Your task to perform on an android device: toggle javascript in the chrome app Image 0: 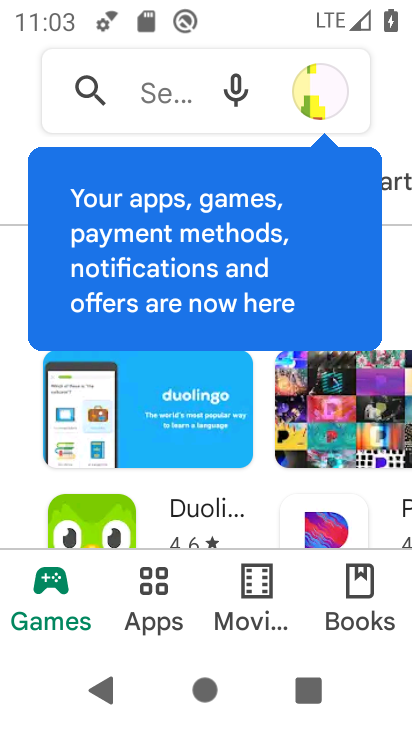
Step 0: press home button
Your task to perform on an android device: toggle javascript in the chrome app Image 1: 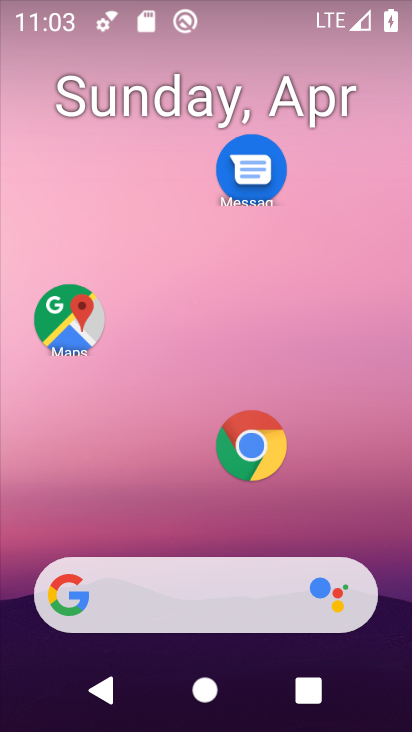
Step 1: click (255, 437)
Your task to perform on an android device: toggle javascript in the chrome app Image 2: 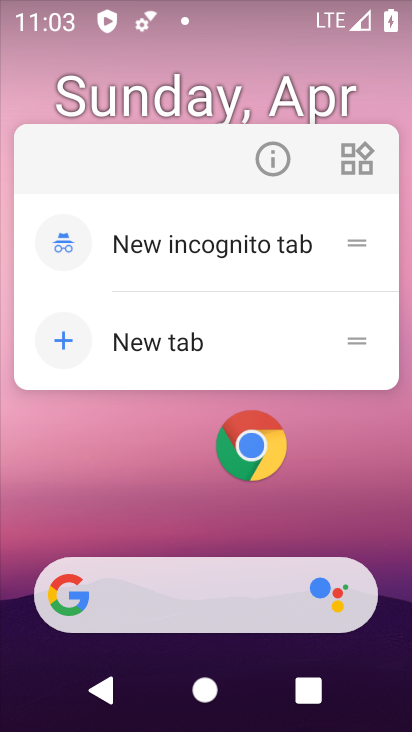
Step 2: click (246, 444)
Your task to perform on an android device: toggle javascript in the chrome app Image 3: 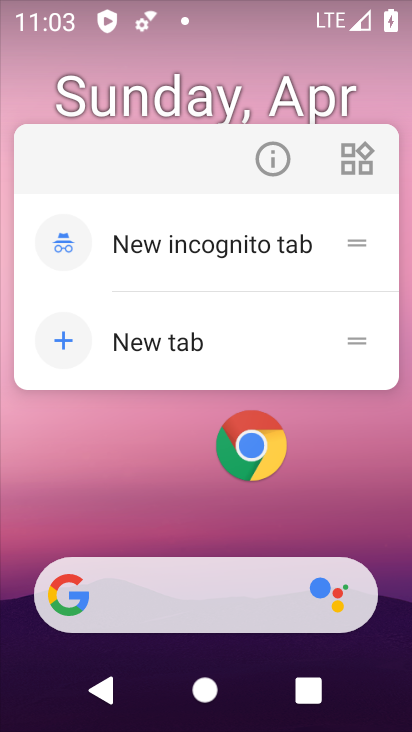
Step 3: click (242, 446)
Your task to perform on an android device: toggle javascript in the chrome app Image 4: 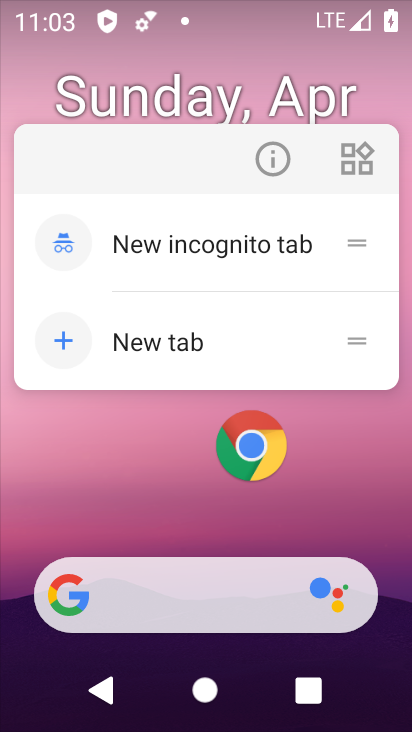
Step 4: click (256, 441)
Your task to perform on an android device: toggle javascript in the chrome app Image 5: 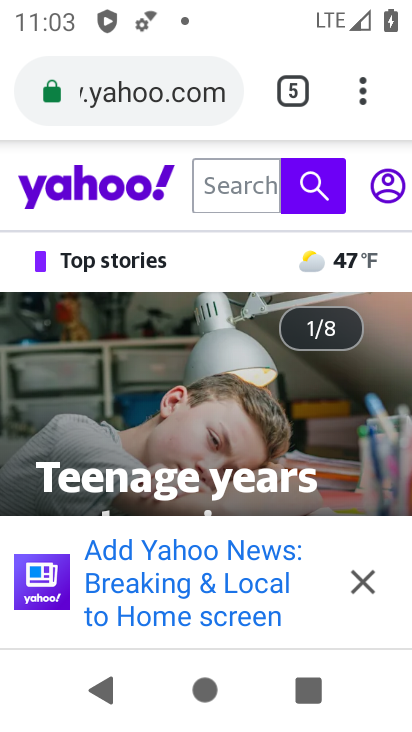
Step 5: drag from (362, 94) to (177, 477)
Your task to perform on an android device: toggle javascript in the chrome app Image 6: 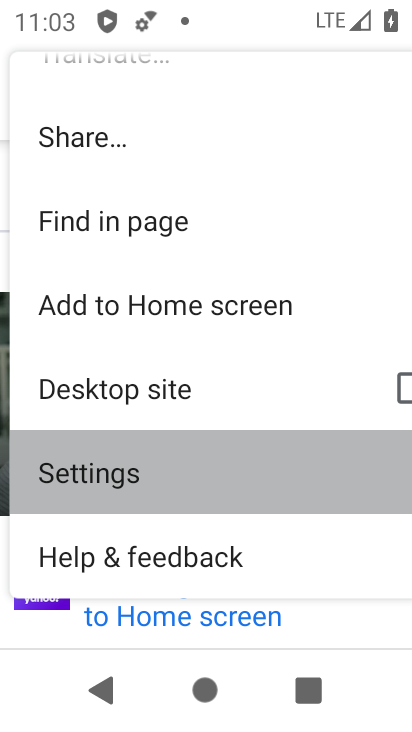
Step 6: click (176, 478)
Your task to perform on an android device: toggle javascript in the chrome app Image 7: 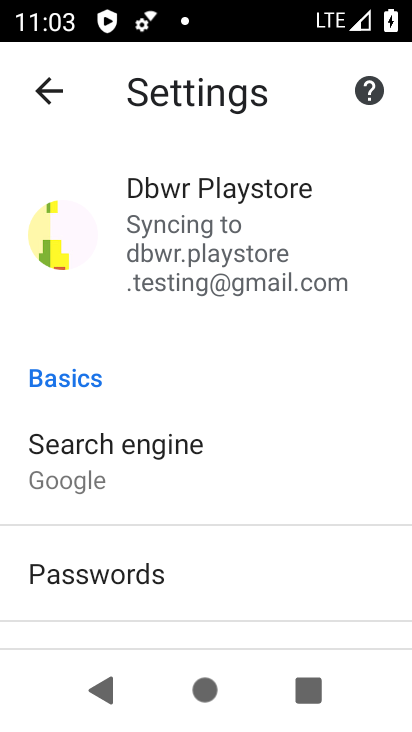
Step 7: drag from (161, 526) to (240, 225)
Your task to perform on an android device: toggle javascript in the chrome app Image 8: 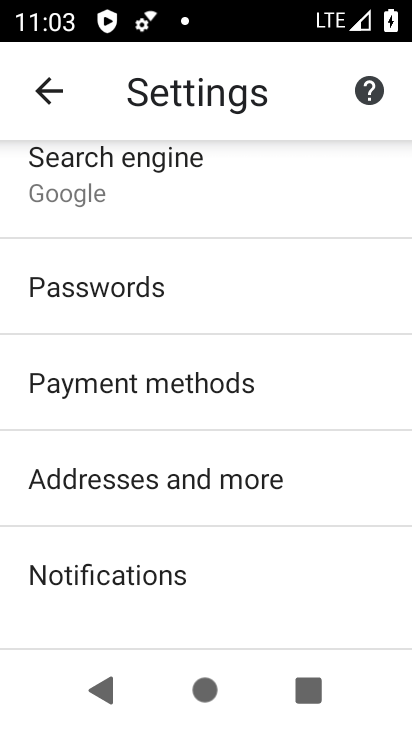
Step 8: drag from (120, 576) to (294, 181)
Your task to perform on an android device: toggle javascript in the chrome app Image 9: 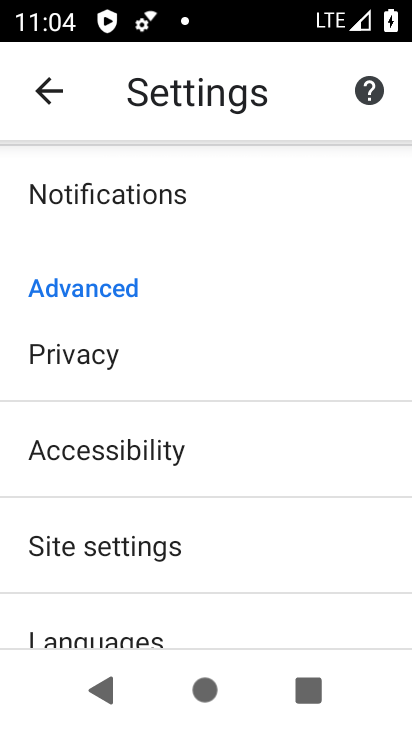
Step 9: click (120, 554)
Your task to perform on an android device: toggle javascript in the chrome app Image 10: 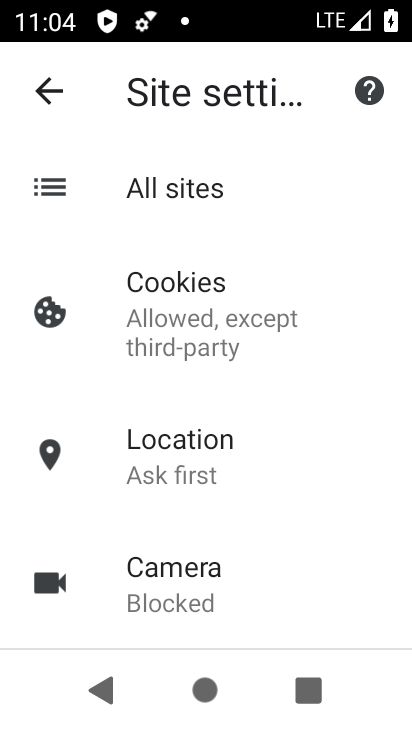
Step 10: drag from (201, 526) to (347, 104)
Your task to perform on an android device: toggle javascript in the chrome app Image 11: 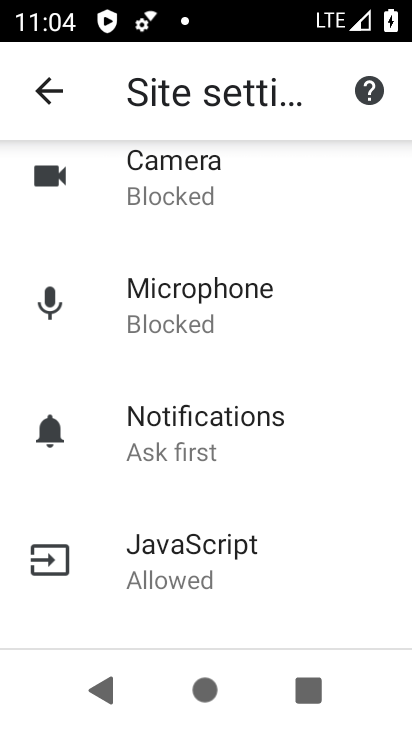
Step 11: click (203, 552)
Your task to perform on an android device: toggle javascript in the chrome app Image 12: 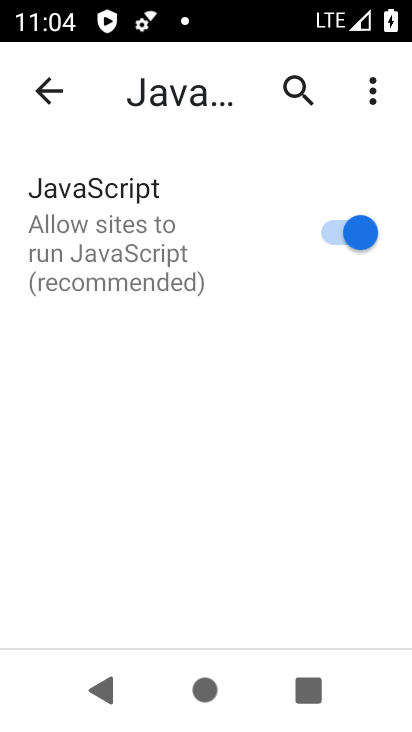
Step 12: click (336, 235)
Your task to perform on an android device: toggle javascript in the chrome app Image 13: 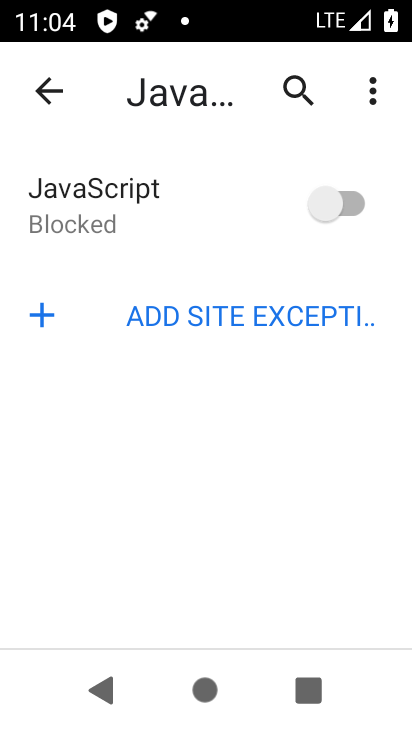
Step 13: task complete